Your task to perform on an android device: Go to wifi settings Image 0: 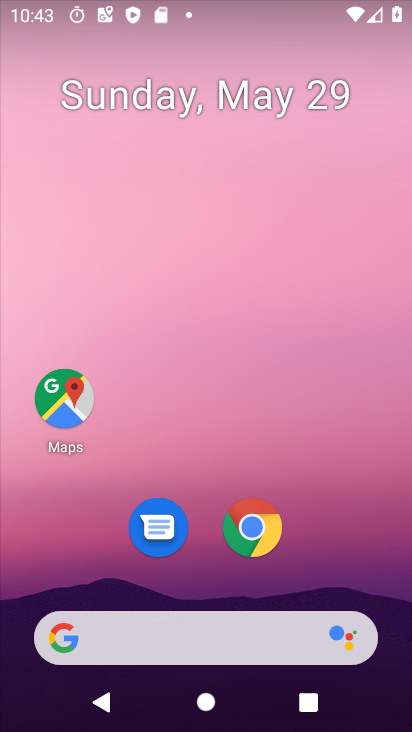
Step 0: drag from (351, 536) to (305, 16)
Your task to perform on an android device: Go to wifi settings Image 1: 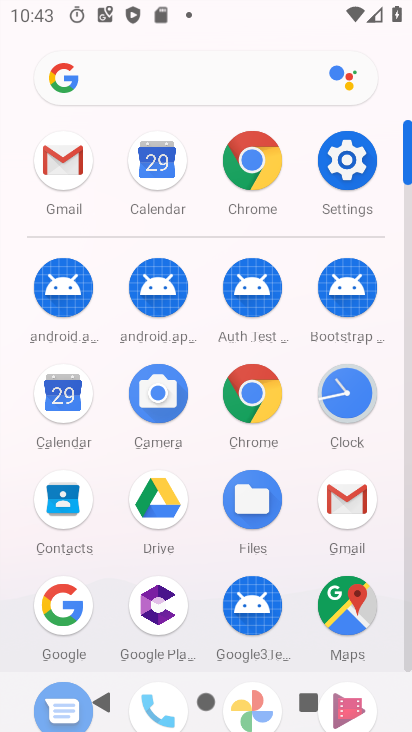
Step 1: click (350, 180)
Your task to perform on an android device: Go to wifi settings Image 2: 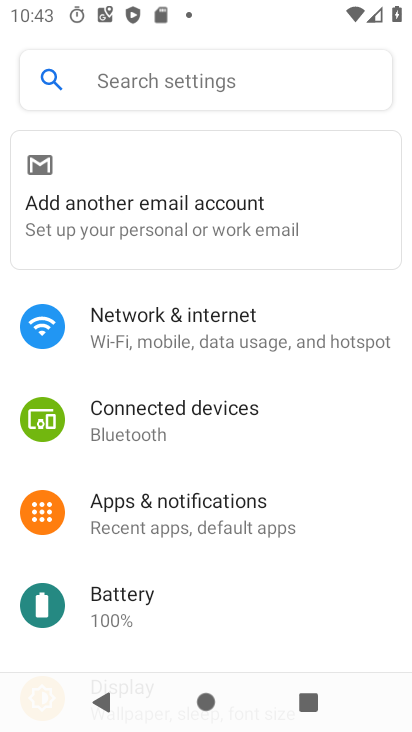
Step 2: click (160, 341)
Your task to perform on an android device: Go to wifi settings Image 3: 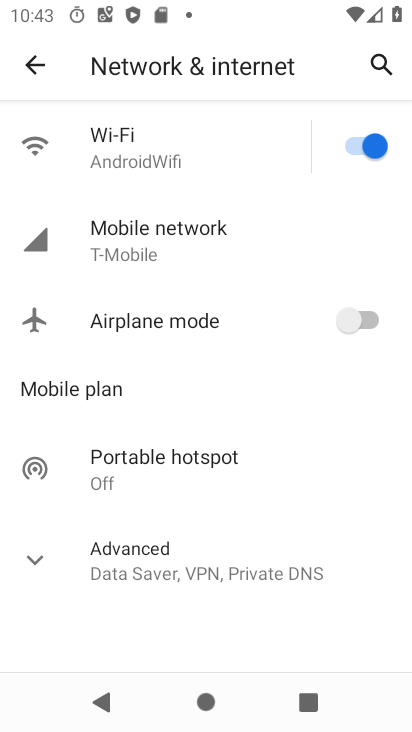
Step 3: click (226, 146)
Your task to perform on an android device: Go to wifi settings Image 4: 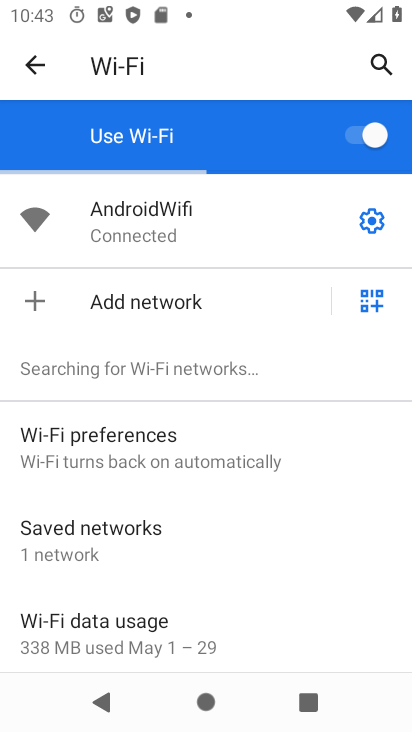
Step 4: click (376, 211)
Your task to perform on an android device: Go to wifi settings Image 5: 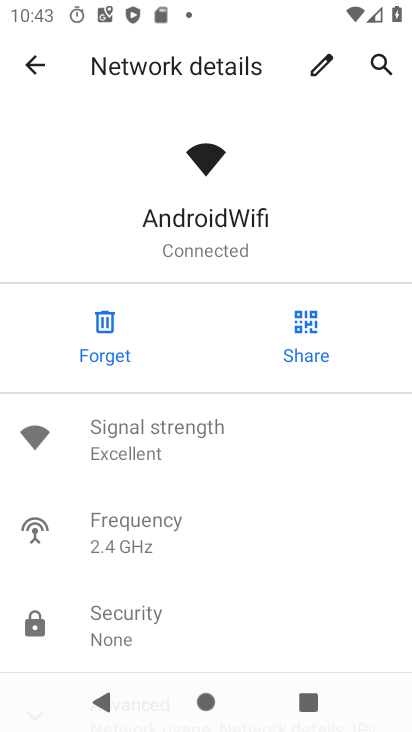
Step 5: task complete